Your task to perform on an android device: delete the emails in spam in the gmail app Image 0: 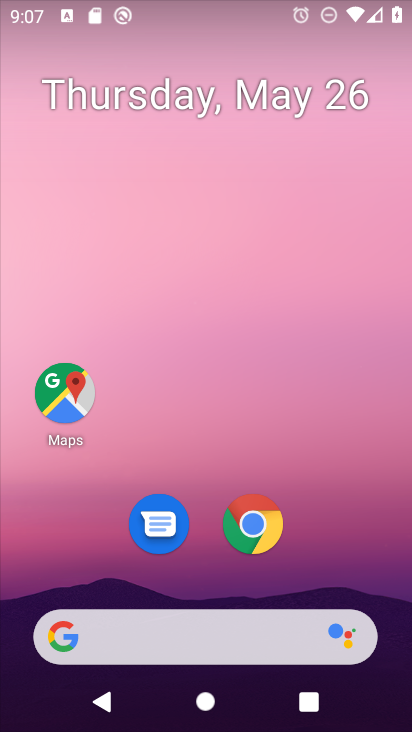
Step 0: drag from (260, 446) to (275, 35)
Your task to perform on an android device: delete the emails in spam in the gmail app Image 1: 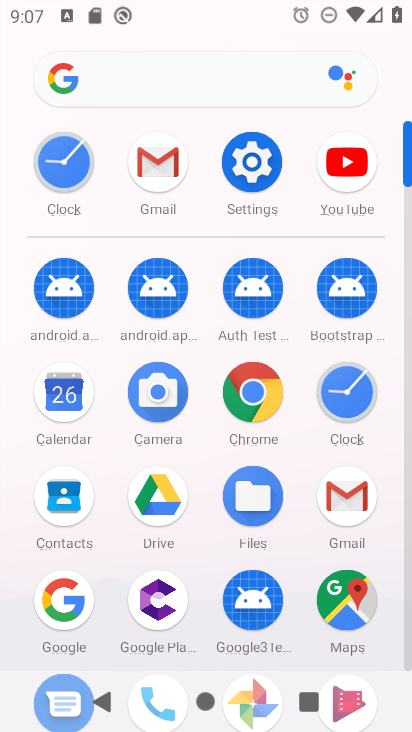
Step 1: click (163, 173)
Your task to perform on an android device: delete the emails in spam in the gmail app Image 2: 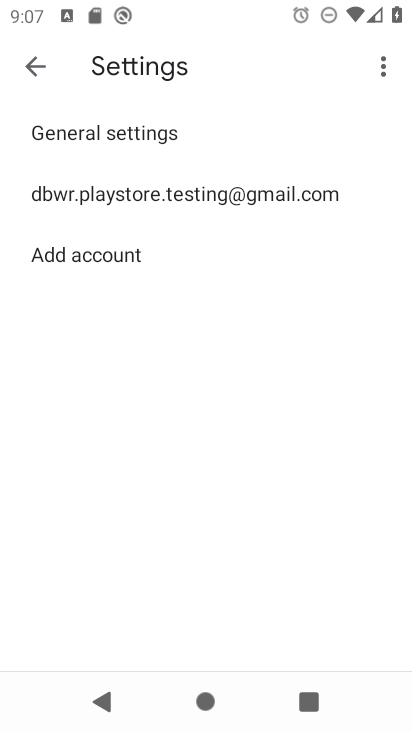
Step 2: click (34, 60)
Your task to perform on an android device: delete the emails in spam in the gmail app Image 3: 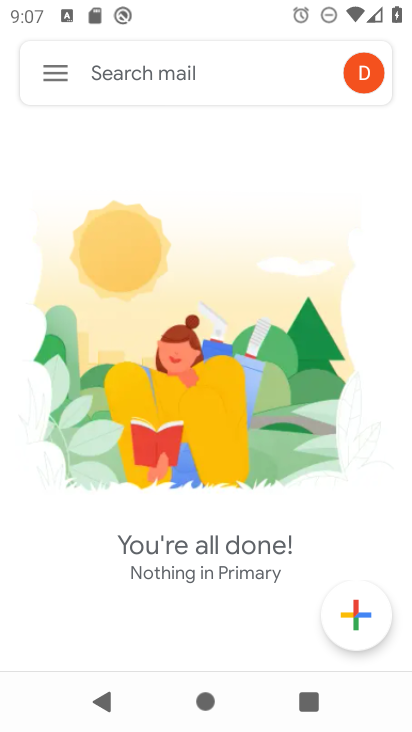
Step 3: click (50, 61)
Your task to perform on an android device: delete the emails in spam in the gmail app Image 4: 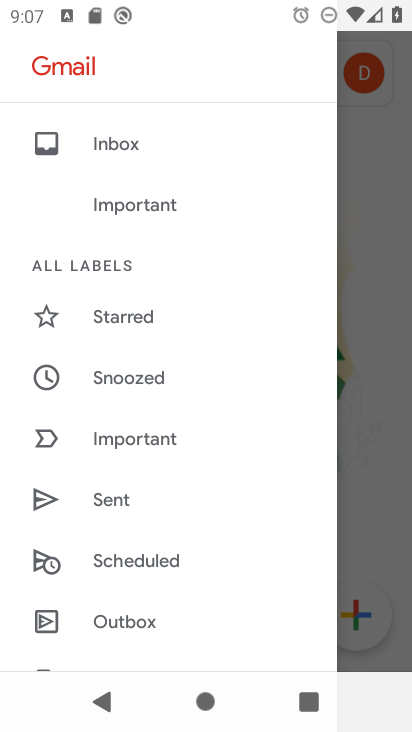
Step 4: drag from (162, 468) to (224, 119)
Your task to perform on an android device: delete the emails in spam in the gmail app Image 5: 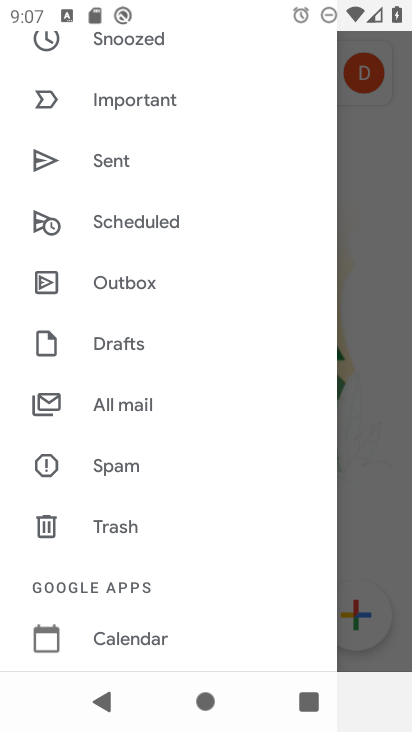
Step 5: click (130, 454)
Your task to perform on an android device: delete the emails in spam in the gmail app Image 6: 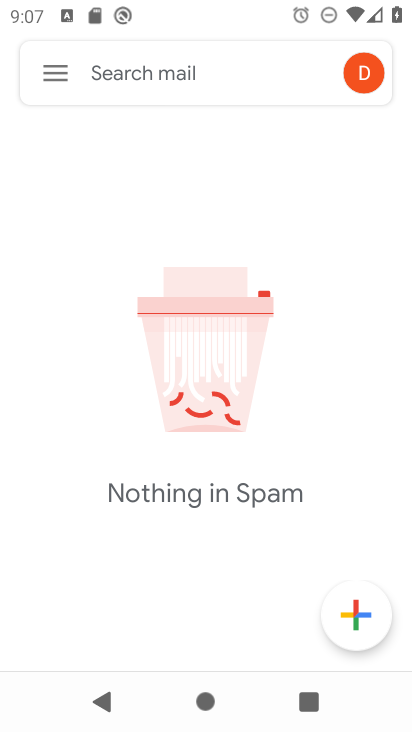
Step 6: task complete